Your task to perform on an android device: Open accessibility settings Image 0: 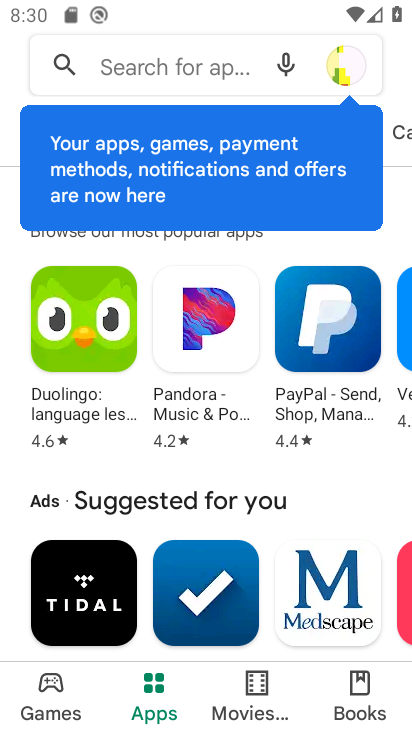
Step 0: press home button
Your task to perform on an android device: Open accessibility settings Image 1: 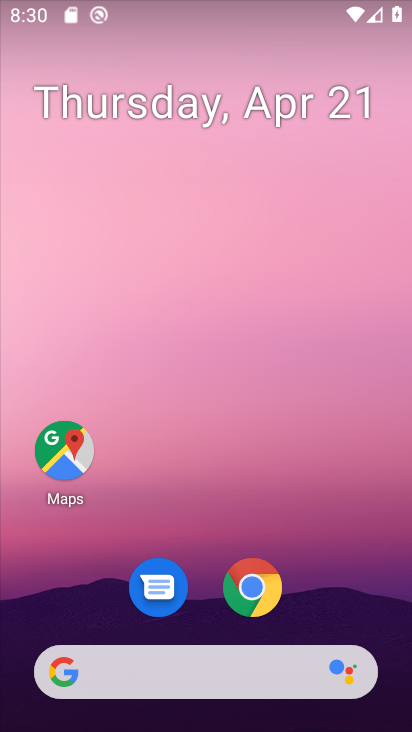
Step 1: drag from (373, 536) to (337, 180)
Your task to perform on an android device: Open accessibility settings Image 2: 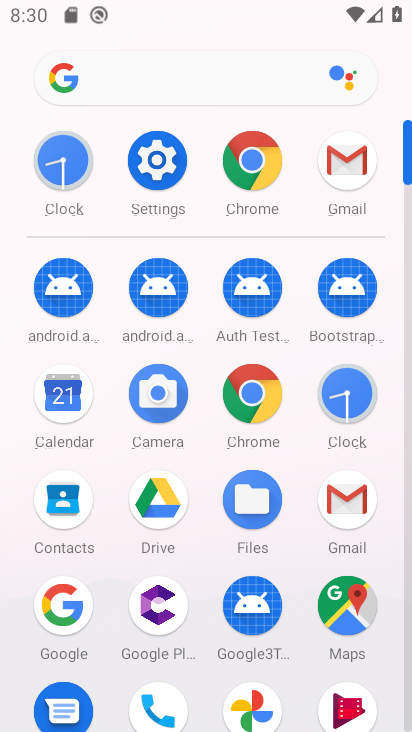
Step 2: click (148, 167)
Your task to perform on an android device: Open accessibility settings Image 3: 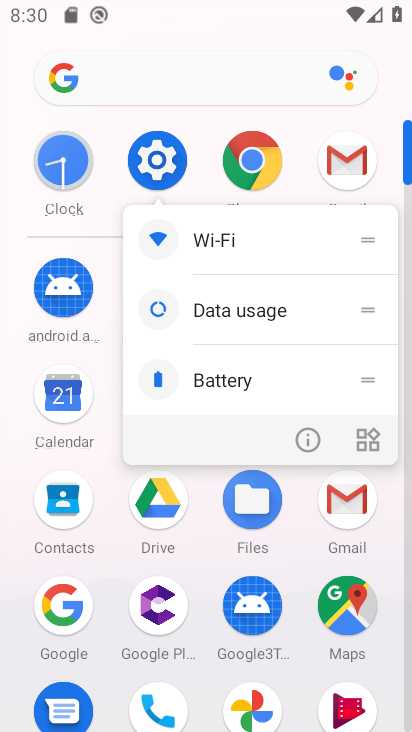
Step 3: click (148, 167)
Your task to perform on an android device: Open accessibility settings Image 4: 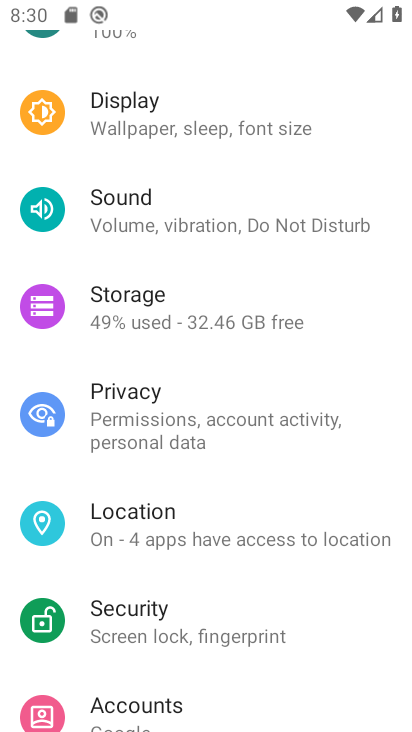
Step 4: drag from (383, 407) to (387, 170)
Your task to perform on an android device: Open accessibility settings Image 5: 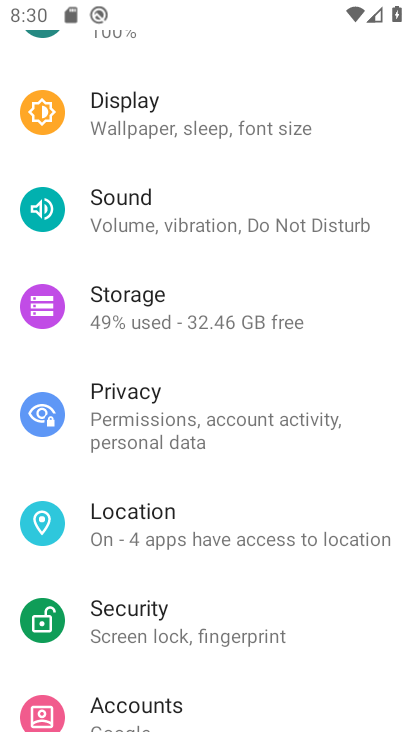
Step 5: drag from (393, 715) to (332, 135)
Your task to perform on an android device: Open accessibility settings Image 6: 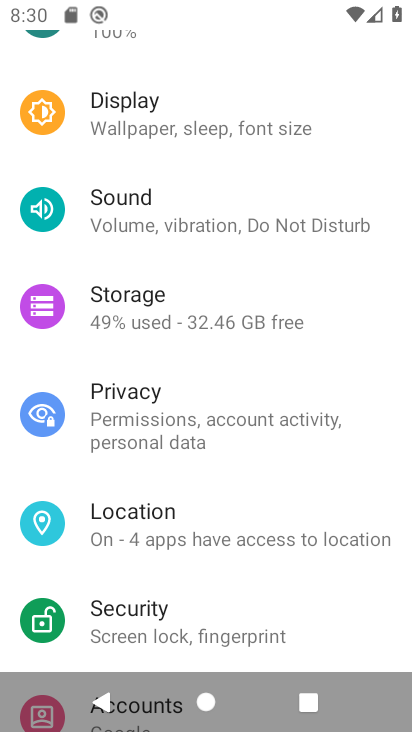
Step 6: drag from (398, 625) to (382, 256)
Your task to perform on an android device: Open accessibility settings Image 7: 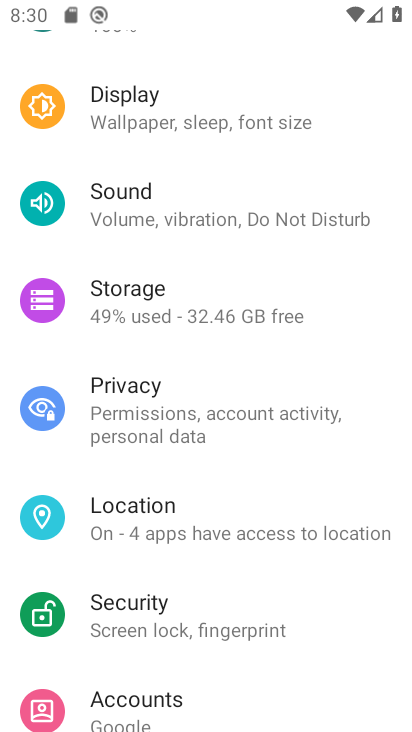
Step 7: drag from (385, 666) to (355, 55)
Your task to perform on an android device: Open accessibility settings Image 8: 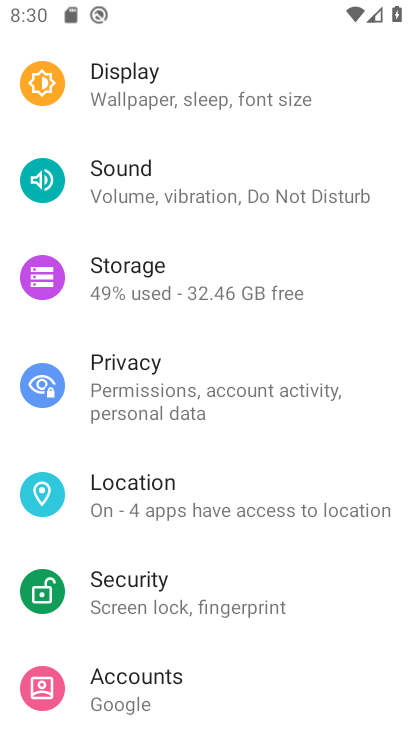
Step 8: drag from (395, 263) to (381, 182)
Your task to perform on an android device: Open accessibility settings Image 9: 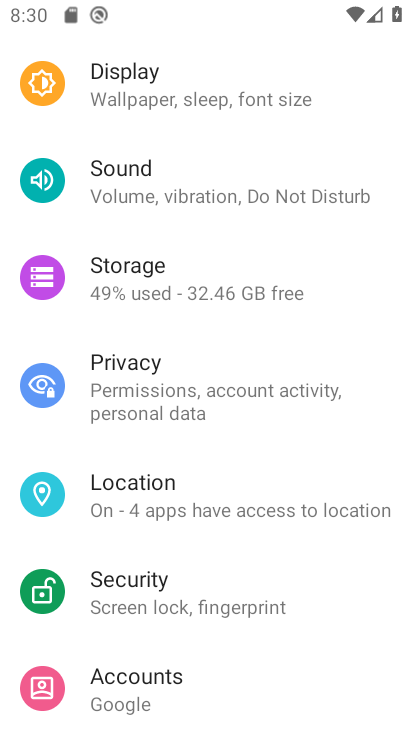
Step 9: drag from (372, 657) to (342, 172)
Your task to perform on an android device: Open accessibility settings Image 10: 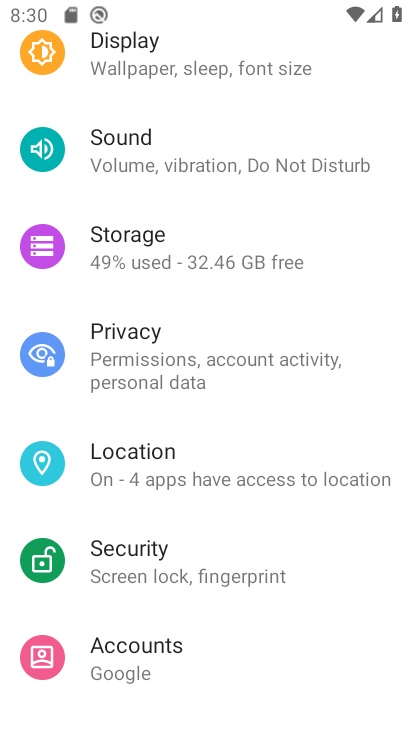
Step 10: drag from (383, 384) to (383, 247)
Your task to perform on an android device: Open accessibility settings Image 11: 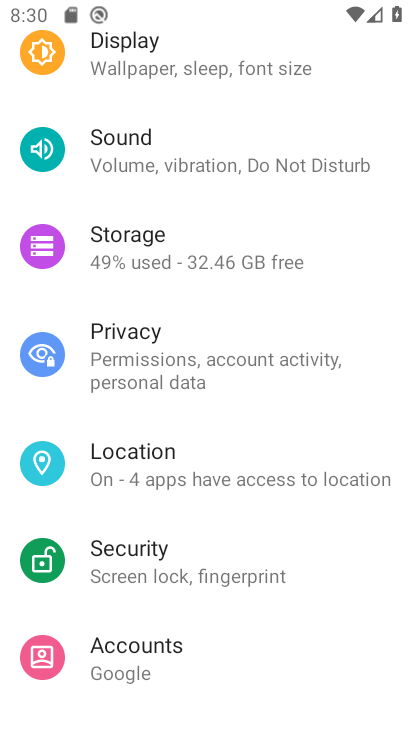
Step 11: drag from (377, 521) to (386, 146)
Your task to perform on an android device: Open accessibility settings Image 12: 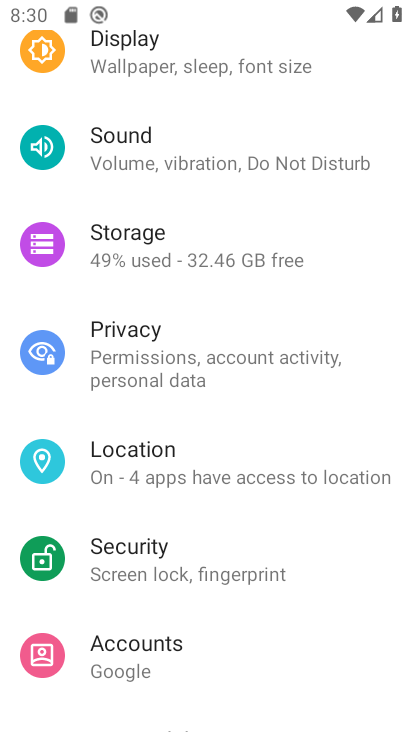
Step 12: drag from (338, 115) to (334, 24)
Your task to perform on an android device: Open accessibility settings Image 13: 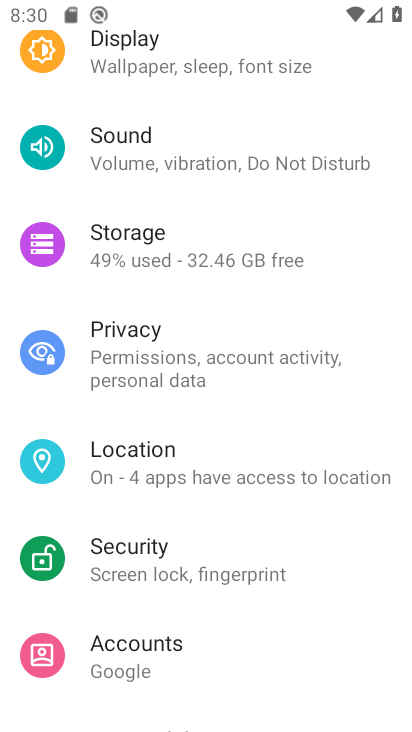
Step 13: drag from (372, 640) to (326, 209)
Your task to perform on an android device: Open accessibility settings Image 14: 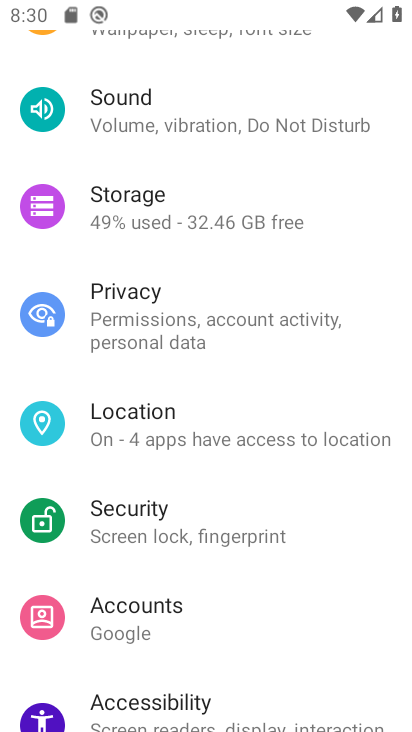
Step 14: click (167, 696)
Your task to perform on an android device: Open accessibility settings Image 15: 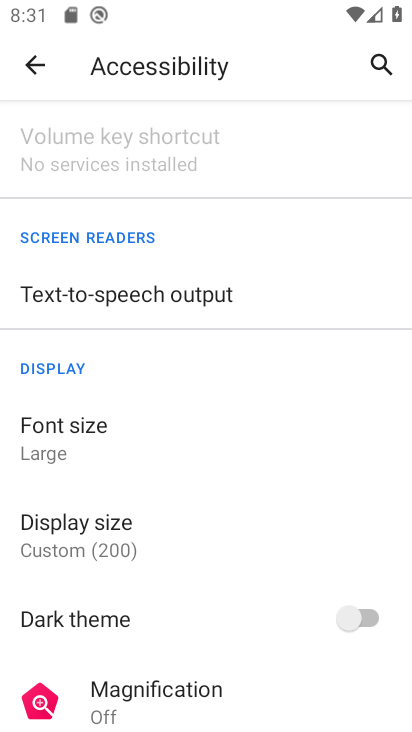
Step 15: task complete